Your task to perform on an android device: Open calendar and show me the second week of next month Image 0: 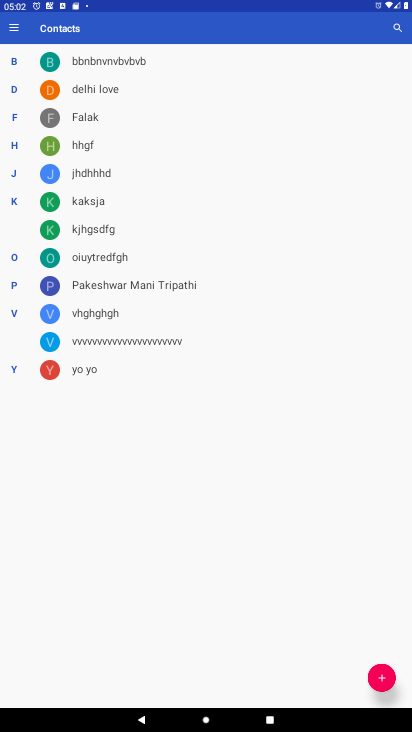
Step 0: press home button
Your task to perform on an android device: Open calendar and show me the second week of next month Image 1: 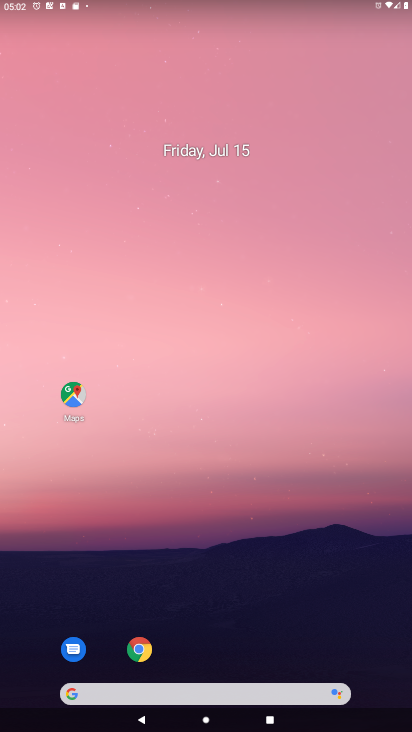
Step 1: drag from (385, 664) to (313, 103)
Your task to perform on an android device: Open calendar and show me the second week of next month Image 2: 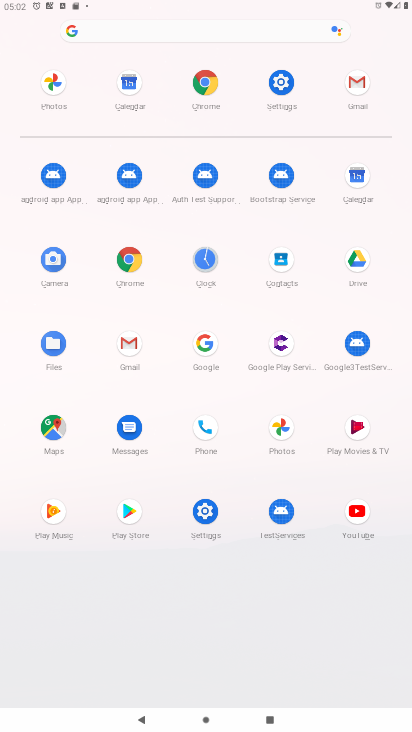
Step 2: click (354, 170)
Your task to perform on an android device: Open calendar and show me the second week of next month Image 3: 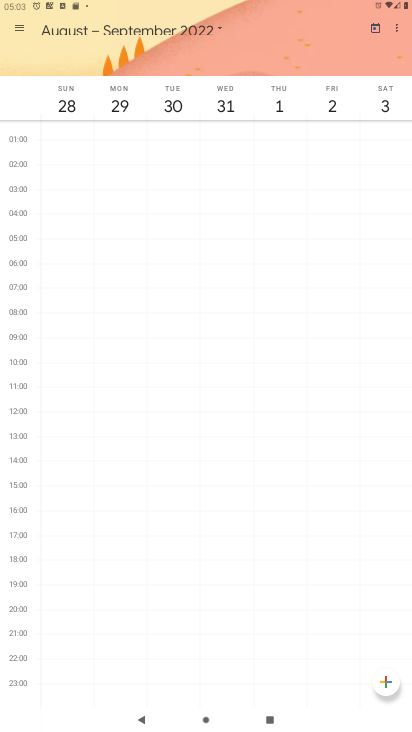
Step 3: click (217, 27)
Your task to perform on an android device: Open calendar and show me the second week of next month Image 4: 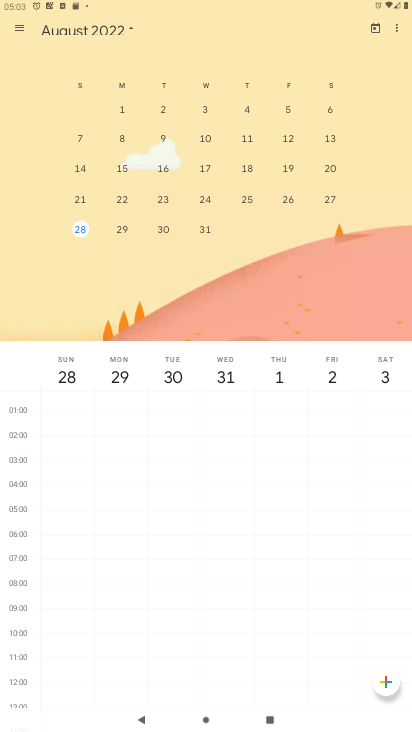
Step 4: click (76, 167)
Your task to perform on an android device: Open calendar and show me the second week of next month Image 5: 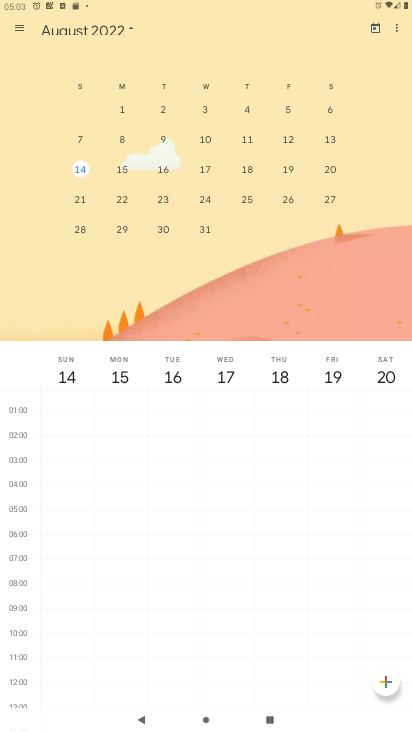
Step 5: task complete